Your task to perform on an android device: change alarm snooze length Image 0: 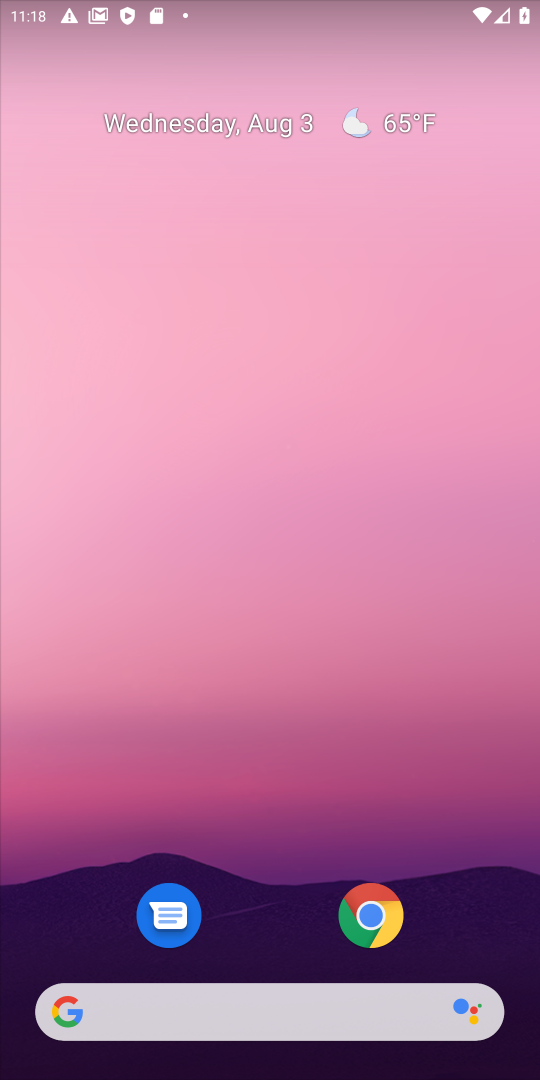
Step 0: drag from (258, 718) to (289, 51)
Your task to perform on an android device: change alarm snooze length Image 1: 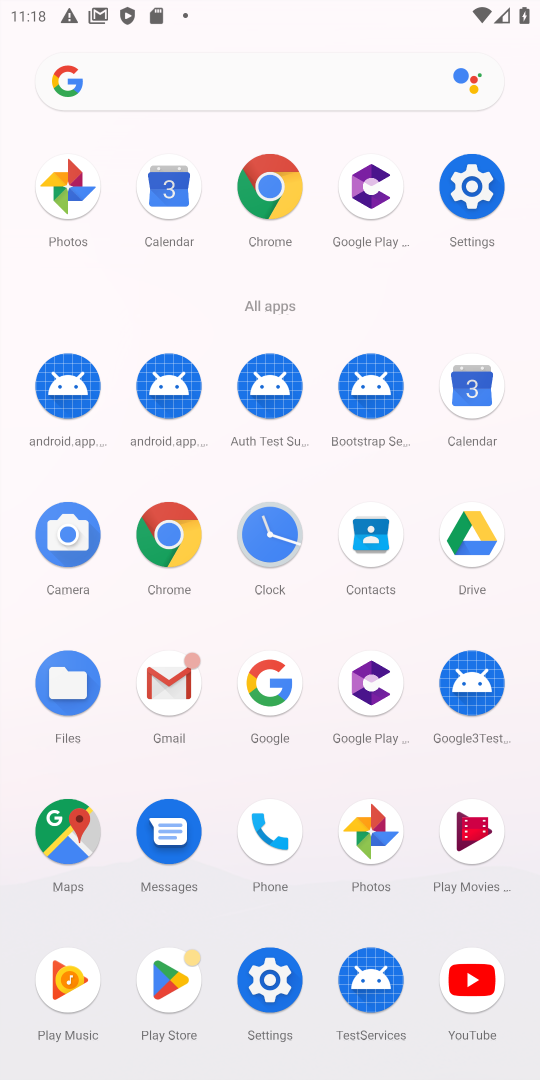
Step 1: click (262, 587)
Your task to perform on an android device: change alarm snooze length Image 2: 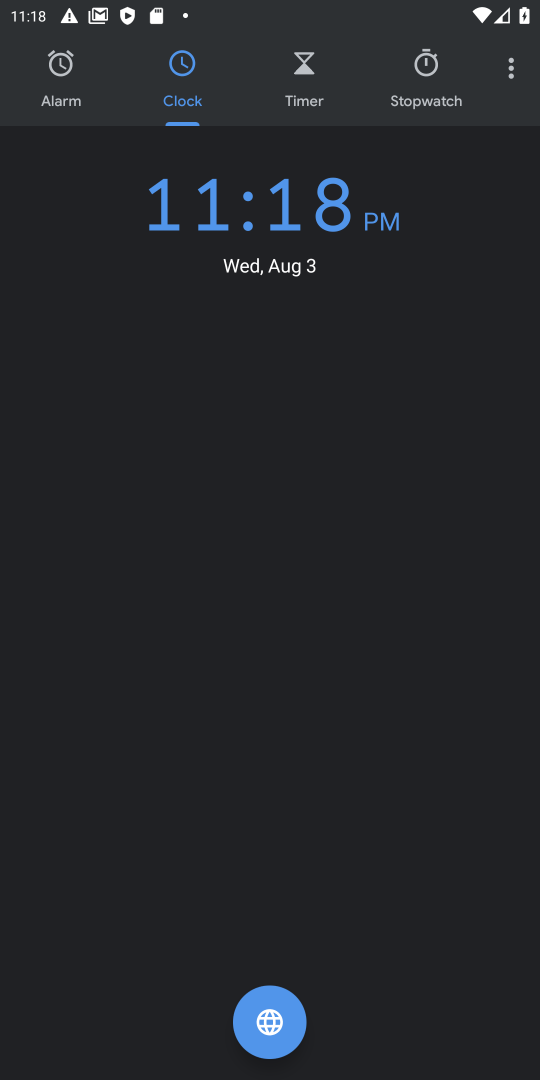
Step 2: click (516, 72)
Your task to perform on an android device: change alarm snooze length Image 3: 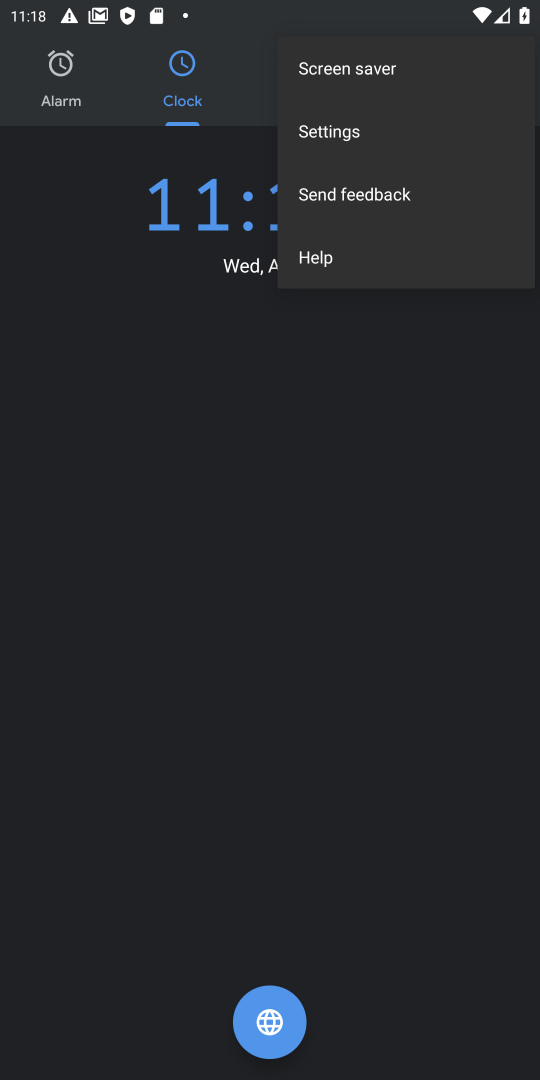
Step 3: click (341, 123)
Your task to perform on an android device: change alarm snooze length Image 4: 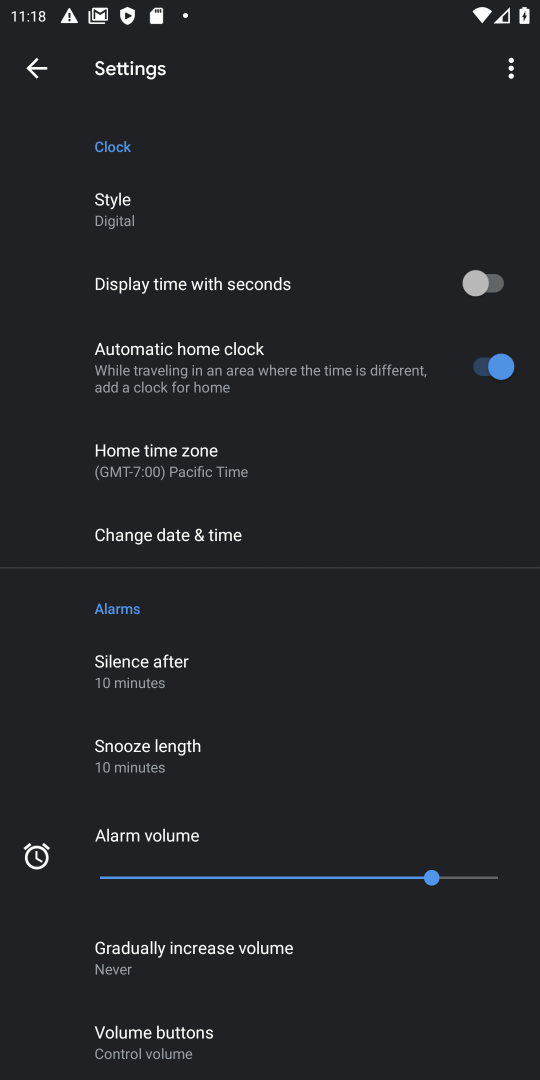
Step 4: click (125, 770)
Your task to perform on an android device: change alarm snooze length Image 5: 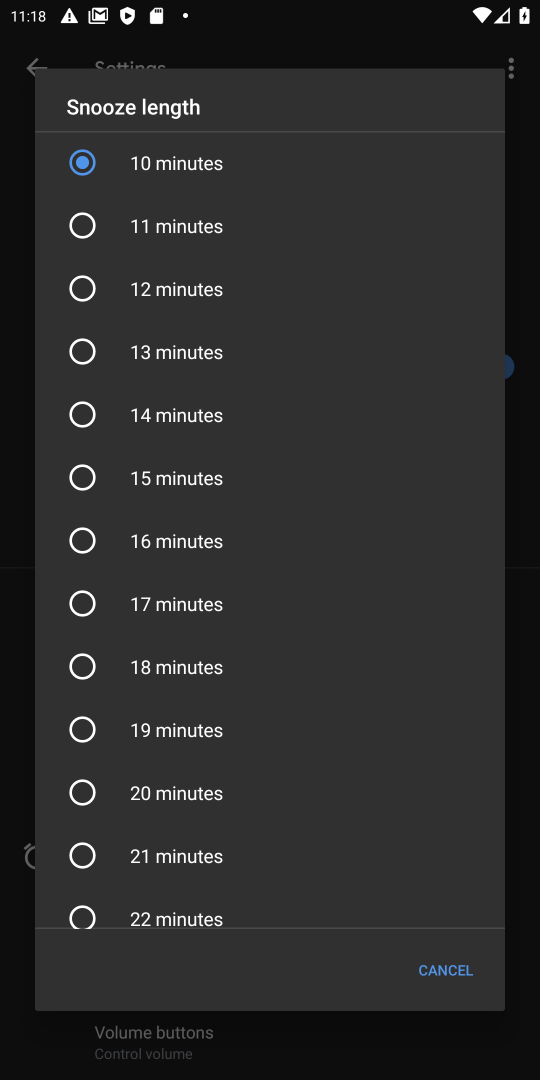
Step 5: click (94, 412)
Your task to perform on an android device: change alarm snooze length Image 6: 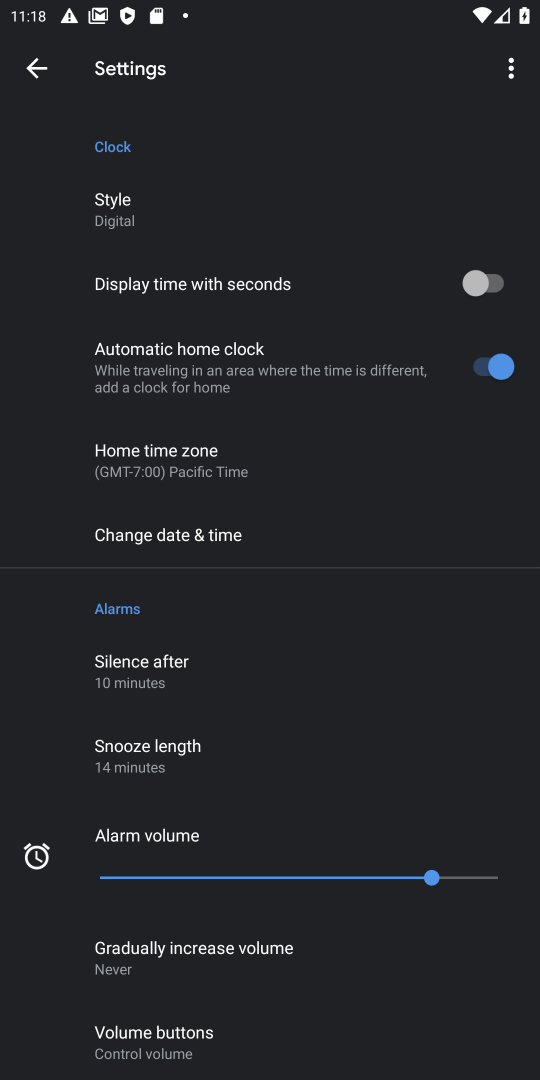
Step 6: task complete